Your task to perform on an android device: toggle pop-ups in chrome Image 0: 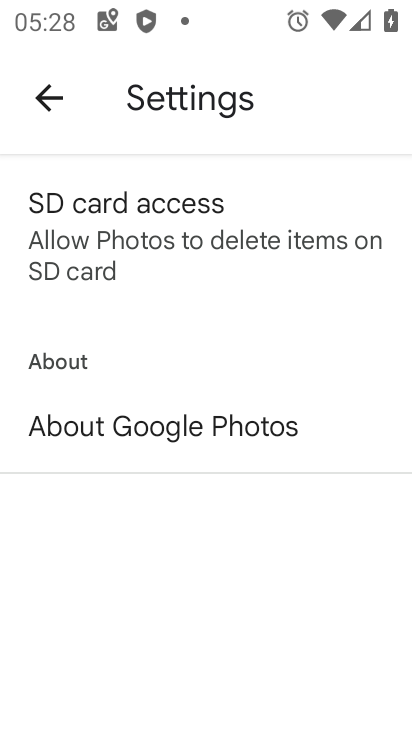
Step 0: press home button
Your task to perform on an android device: toggle pop-ups in chrome Image 1: 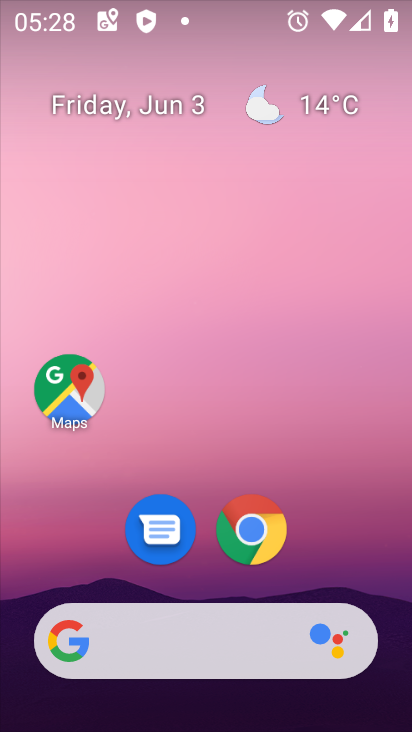
Step 1: click (249, 524)
Your task to perform on an android device: toggle pop-ups in chrome Image 2: 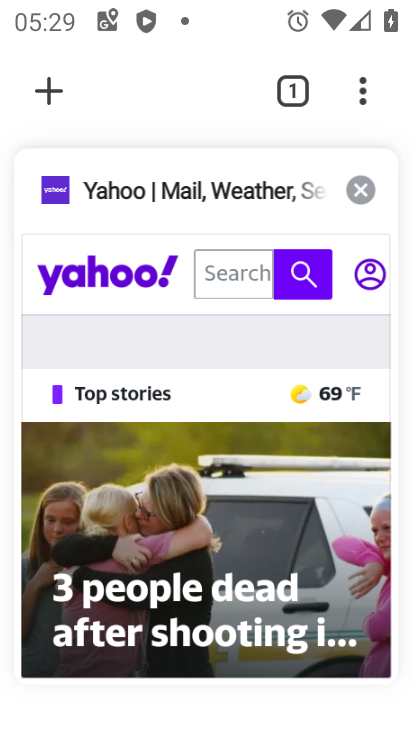
Step 2: click (194, 324)
Your task to perform on an android device: toggle pop-ups in chrome Image 3: 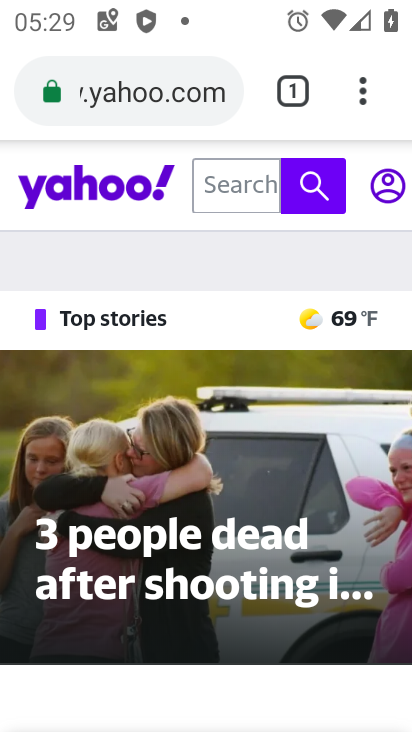
Step 3: click (360, 84)
Your task to perform on an android device: toggle pop-ups in chrome Image 4: 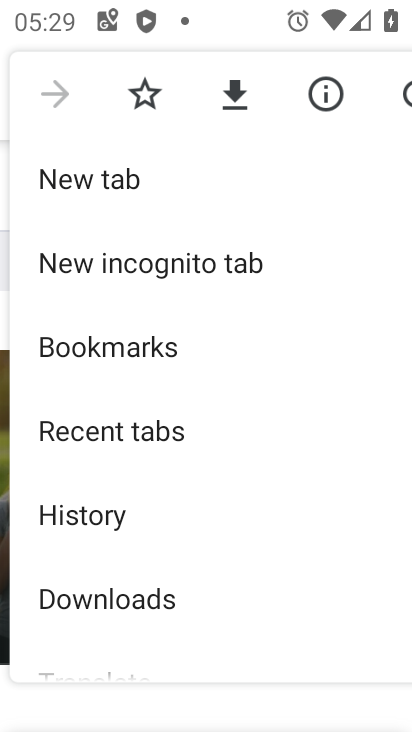
Step 4: drag from (233, 598) to (232, 112)
Your task to perform on an android device: toggle pop-ups in chrome Image 5: 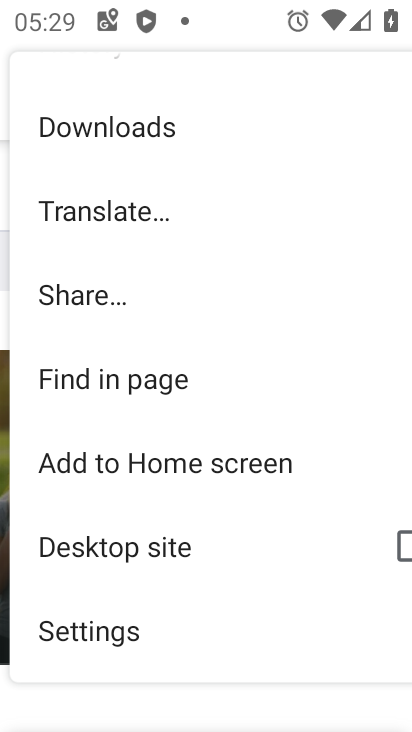
Step 5: click (158, 629)
Your task to perform on an android device: toggle pop-ups in chrome Image 6: 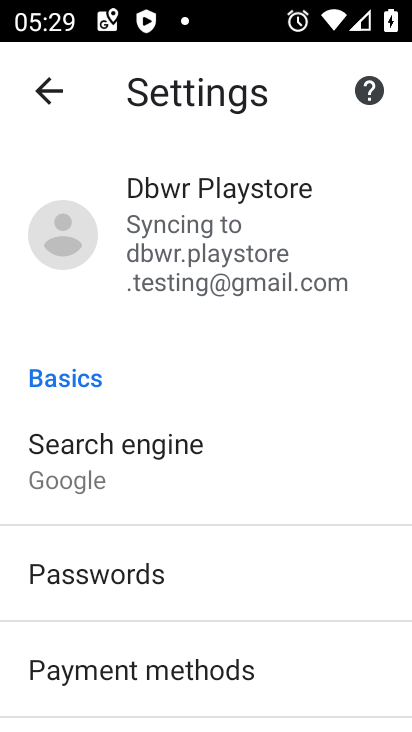
Step 6: drag from (282, 647) to (287, 114)
Your task to perform on an android device: toggle pop-ups in chrome Image 7: 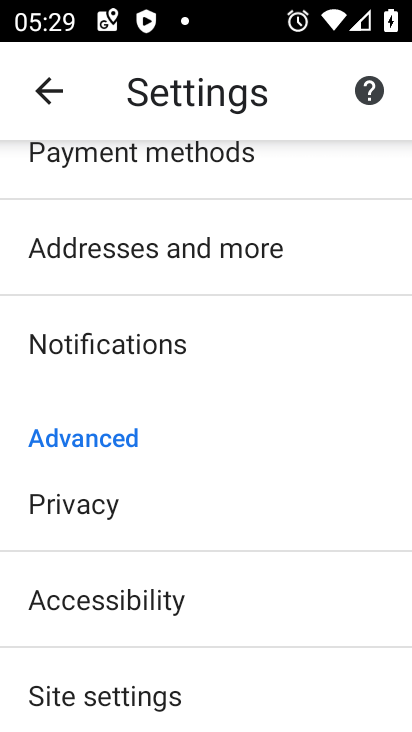
Step 7: click (200, 667)
Your task to perform on an android device: toggle pop-ups in chrome Image 8: 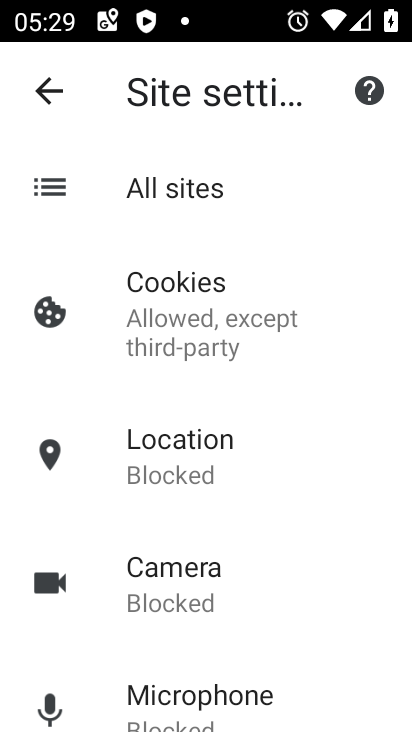
Step 8: drag from (254, 647) to (270, 86)
Your task to perform on an android device: toggle pop-ups in chrome Image 9: 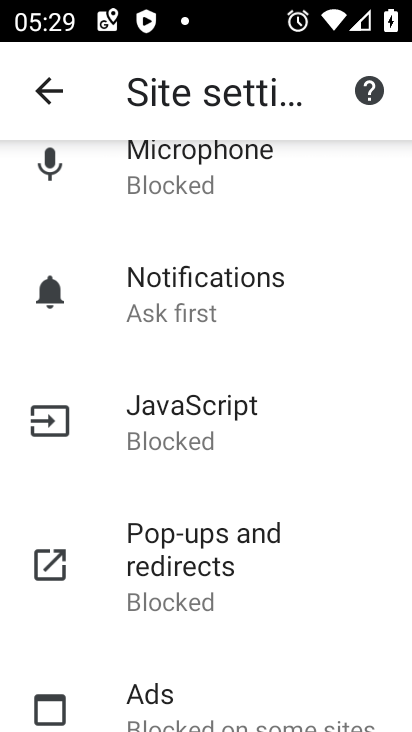
Step 9: click (242, 587)
Your task to perform on an android device: toggle pop-ups in chrome Image 10: 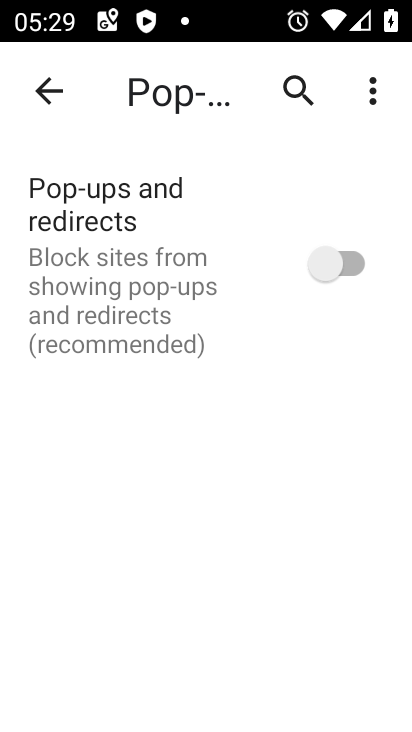
Step 10: click (344, 253)
Your task to perform on an android device: toggle pop-ups in chrome Image 11: 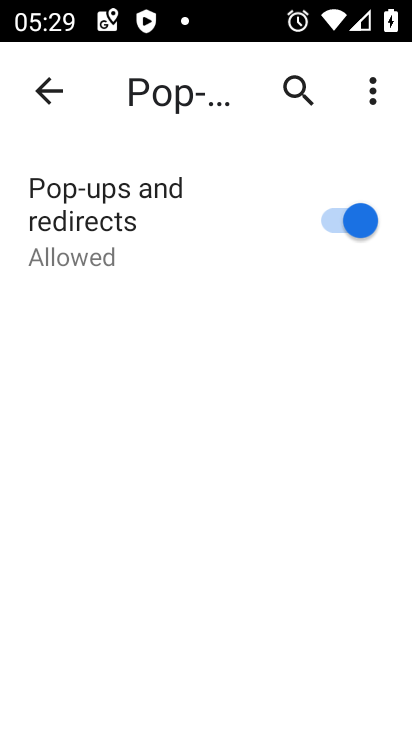
Step 11: task complete